Your task to perform on an android device: change timer sound Image 0: 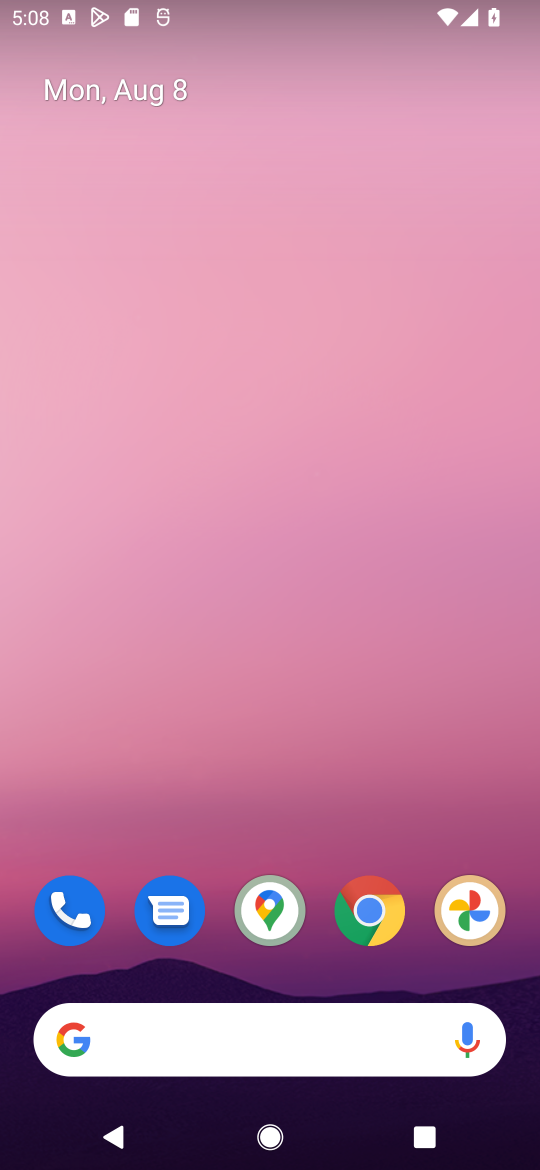
Step 0: drag from (273, 829) to (179, 9)
Your task to perform on an android device: change timer sound Image 1: 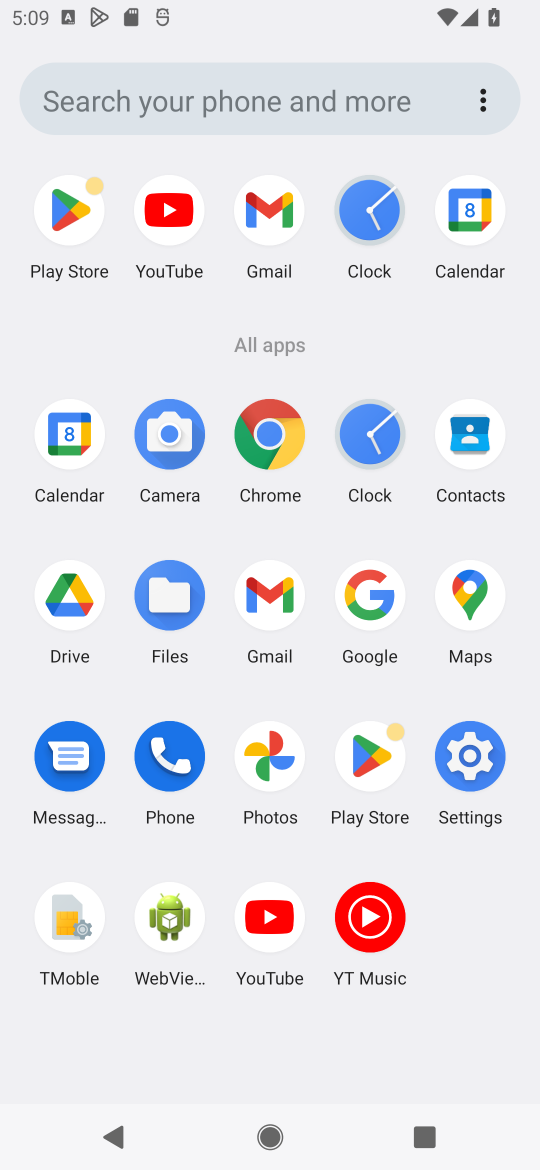
Step 1: click (454, 757)
Your task to perform on an android device: change timer sound Image 2: 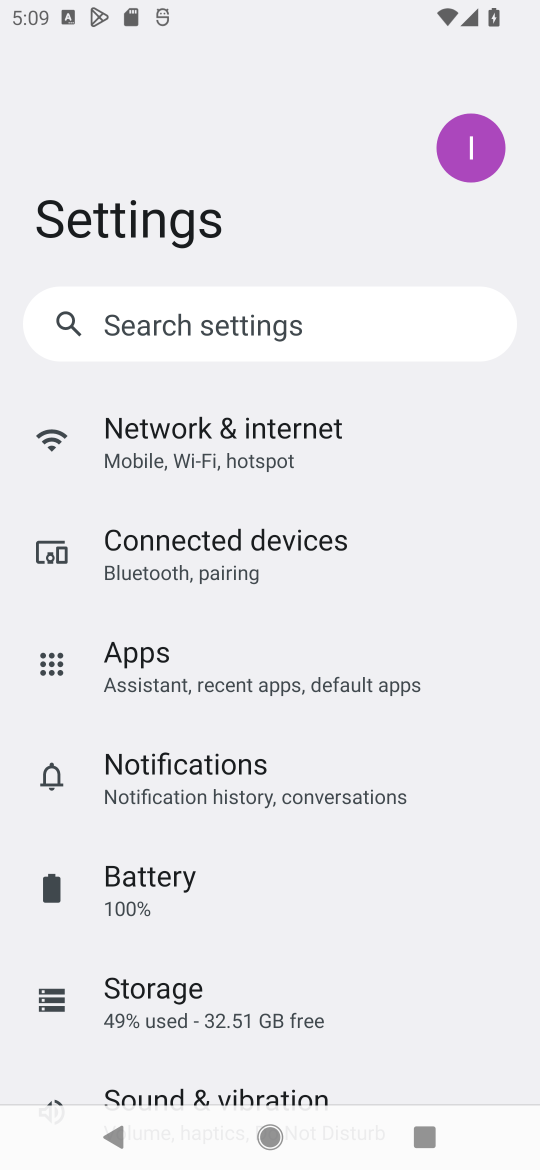
Step 2: press home button
Your task to perform on an android device: change timer sound Image 3: 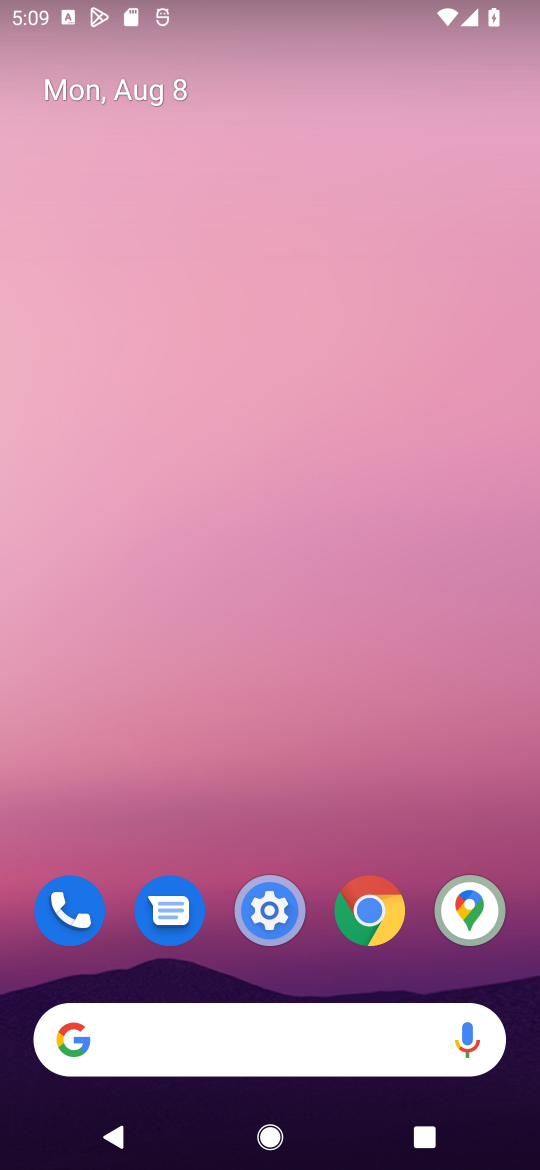
Step 3: drag from (327, 834) to (249, 167)
Your task to perform on an android device: change timer sound Image 4: 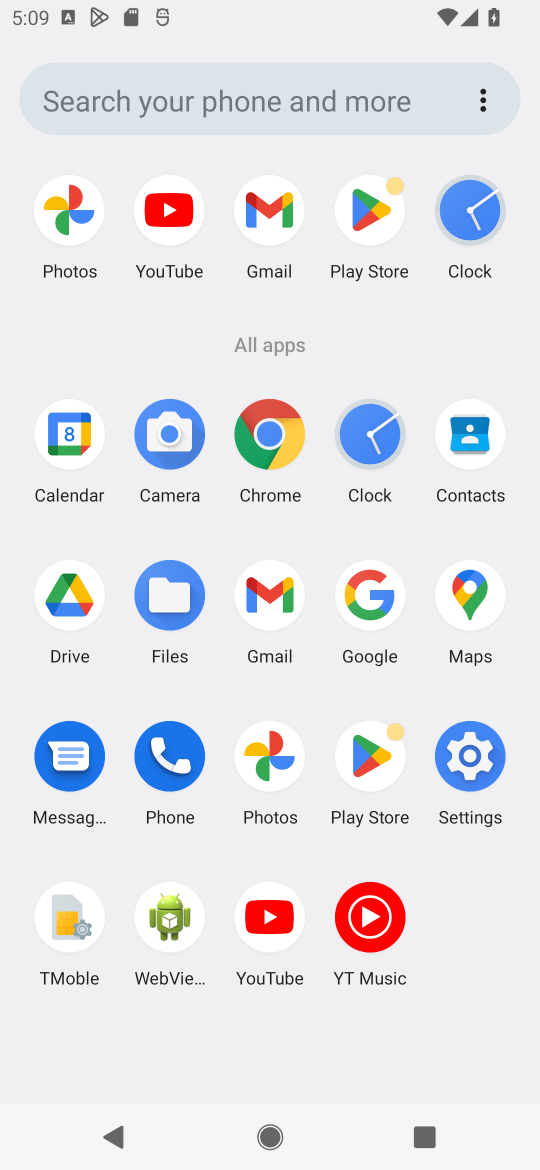
Step 4: click (450, 224)
Your task to perform on an android device: change timer sound Image 5: 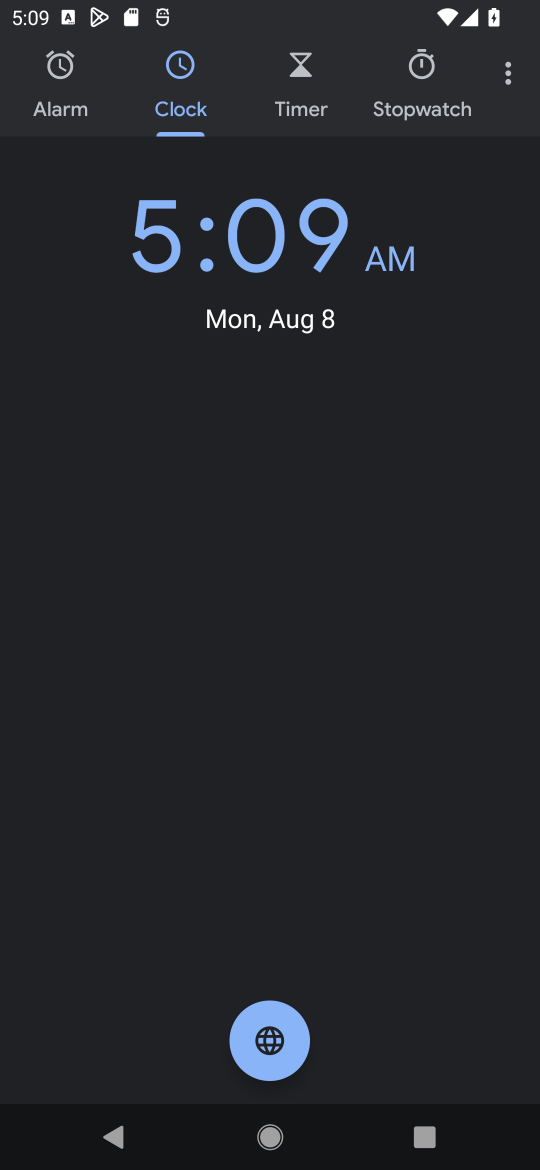
Step 5: click (509, 72)
Your task to perform on an android device: change timer sound Image 6: 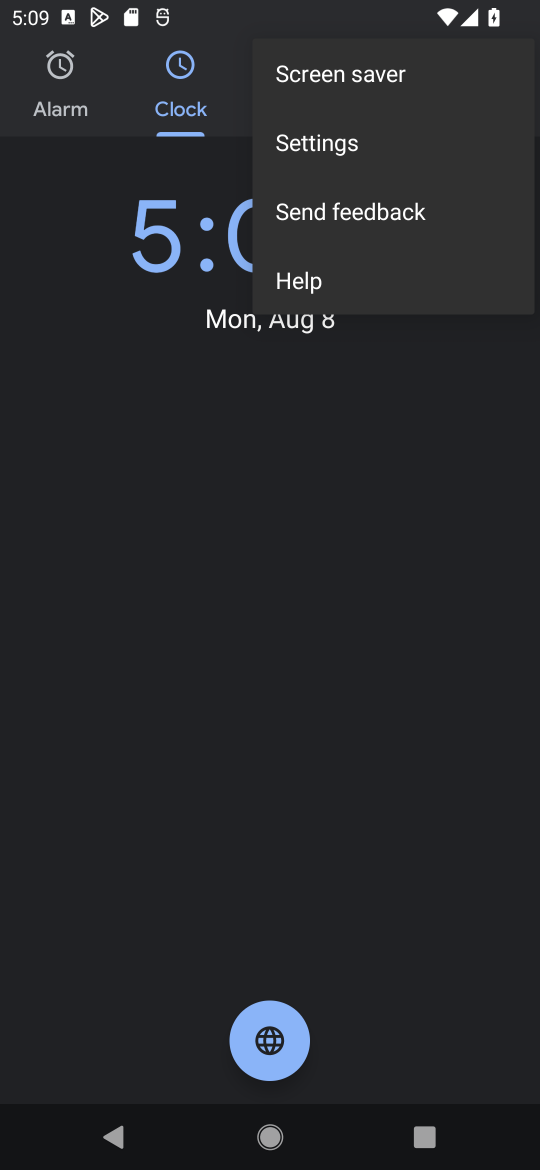
Step 6: click (312, 136)
Your task to perform on an android device: change timer sound Image 7: 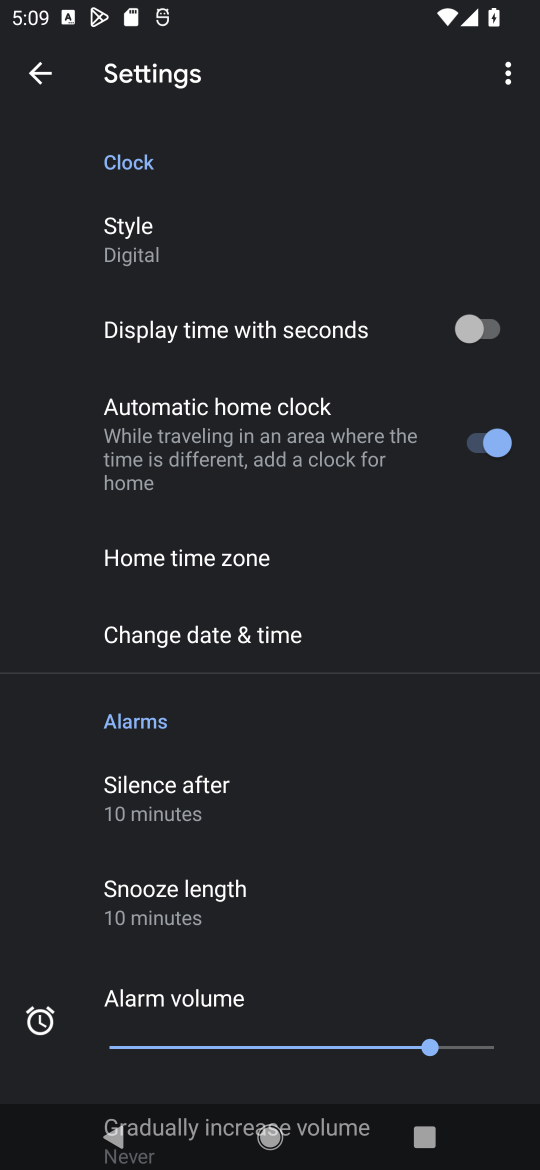
Step 7: drag from (357, 763) to (325, 266)
Your task to perform on an android device: change timer sound Image 8: 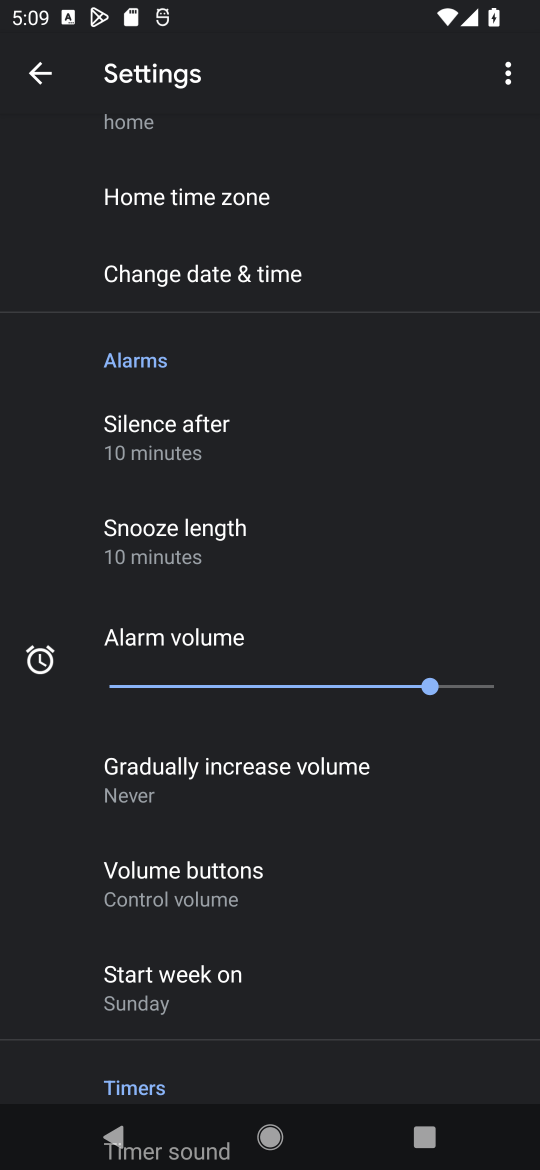
Step 8: drag from (351, 936) to (319, 553)
Your task to perform on an android device: change timer sound Image 9: 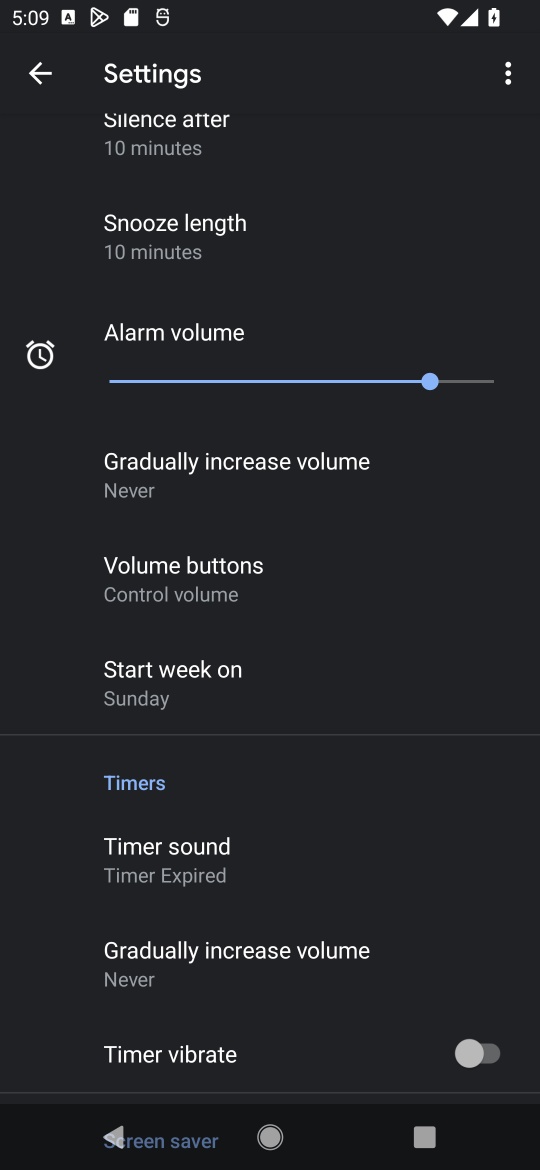
Step 9: click (201, 851)
Your task to perform on an android device: change timer sound Image 10: 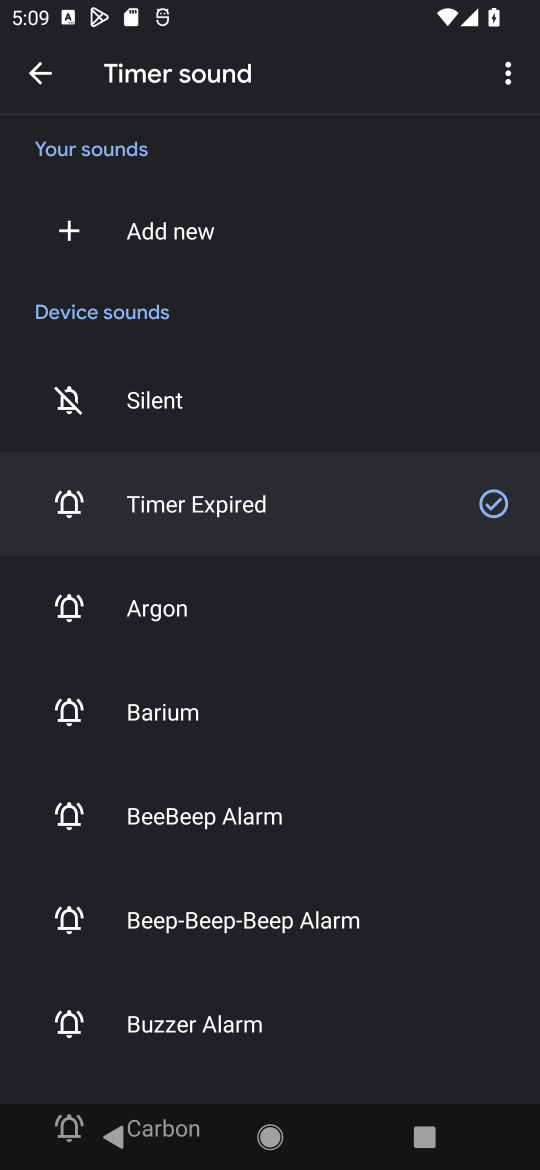
Step 10: click (188, 596)
Your task to perform on an android device: change timer sound Image 11: 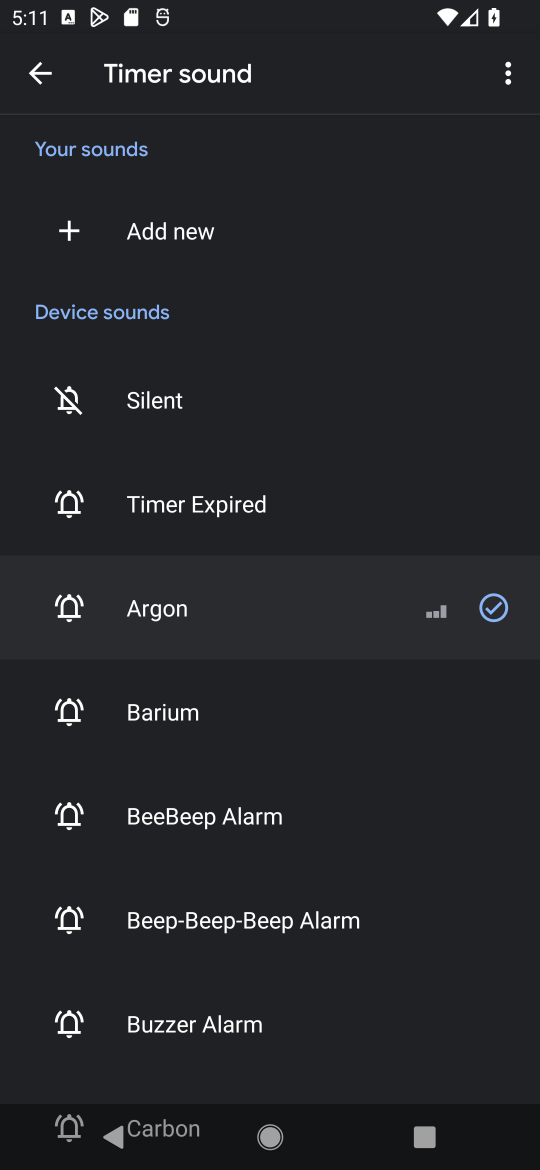
Step 11: task complete